Your task to perform on an android device: snooze an email in the gmail app Image 0: 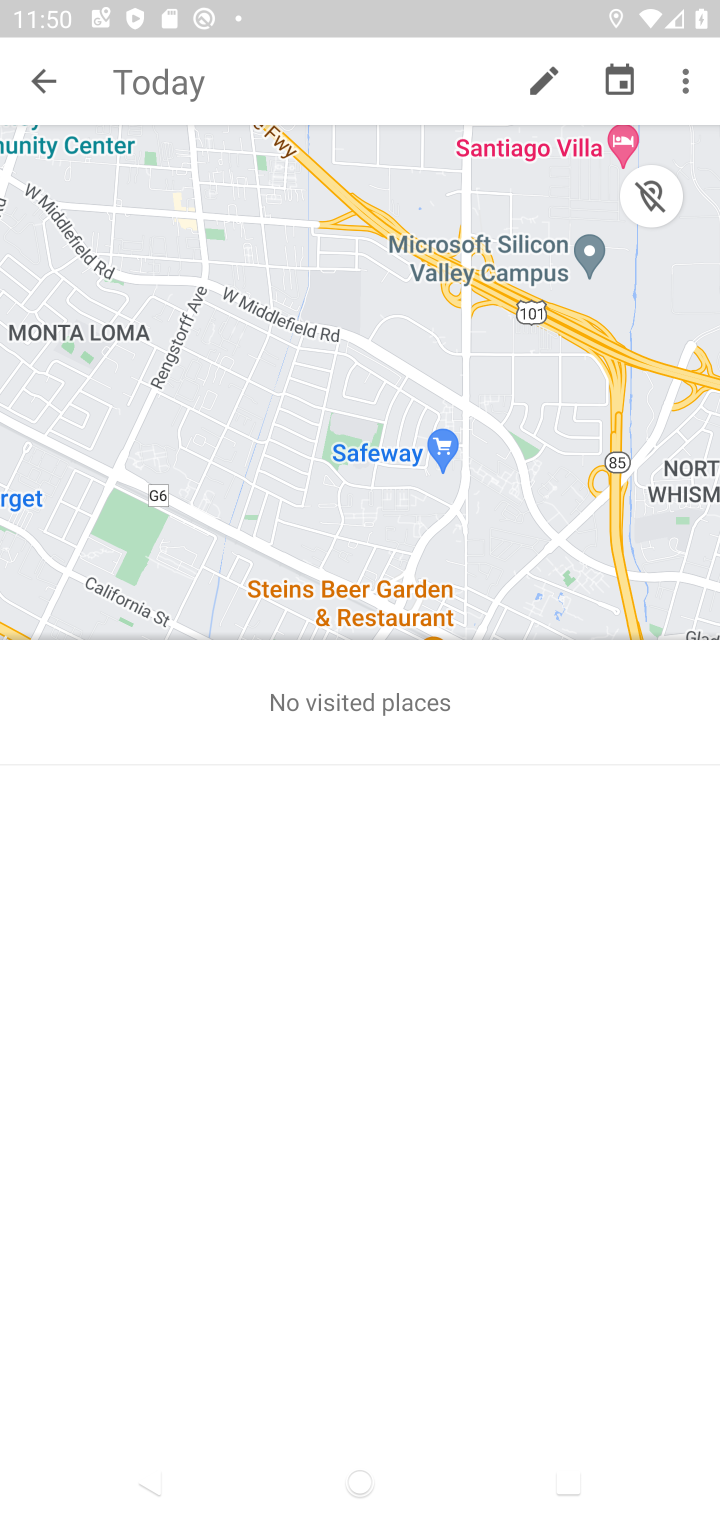
Step 0: press home button
Your task to perform on an android device: snooze an email in the gmail app Image 1: 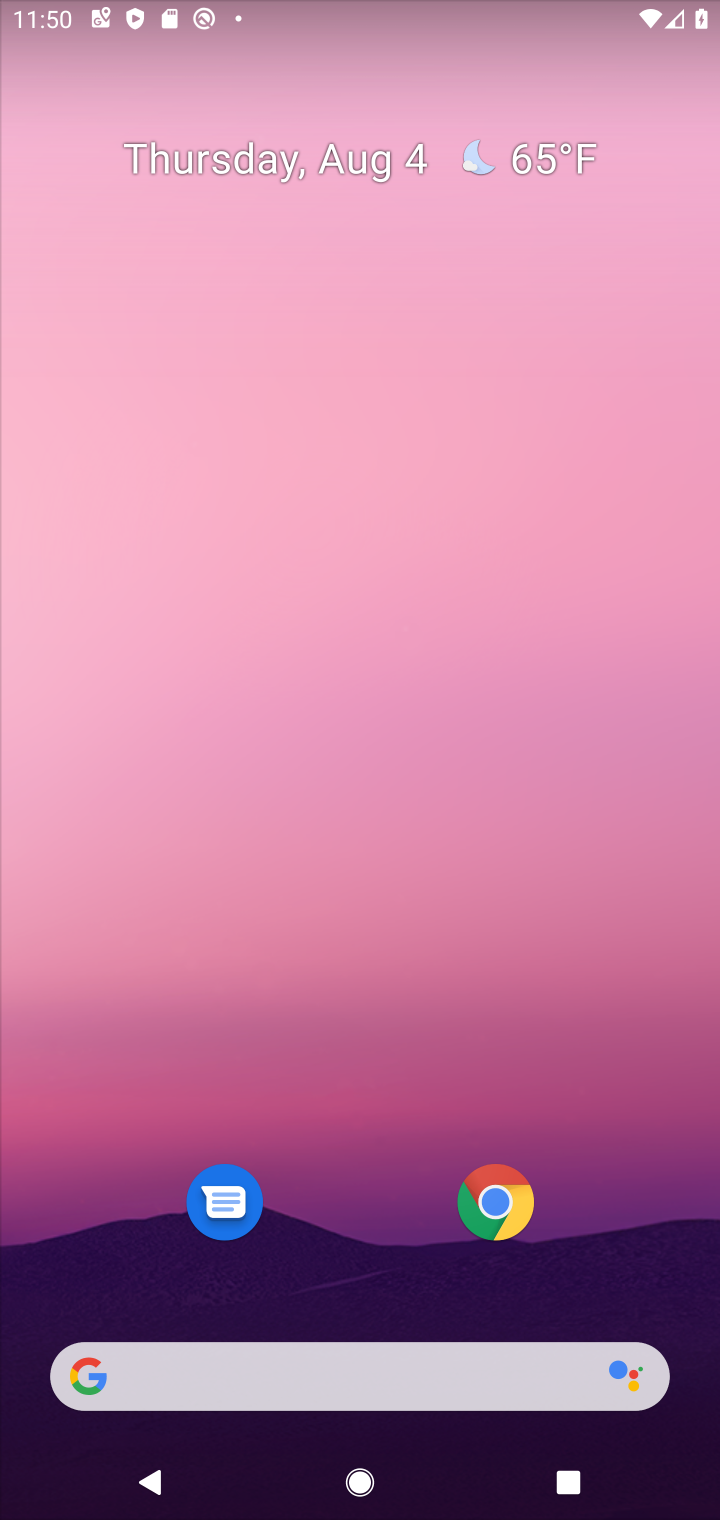
Step 1: drag from (361, 1296) to (462, 12)
Your task to perform on an android device: snooze an email in the gmail app Image 2: 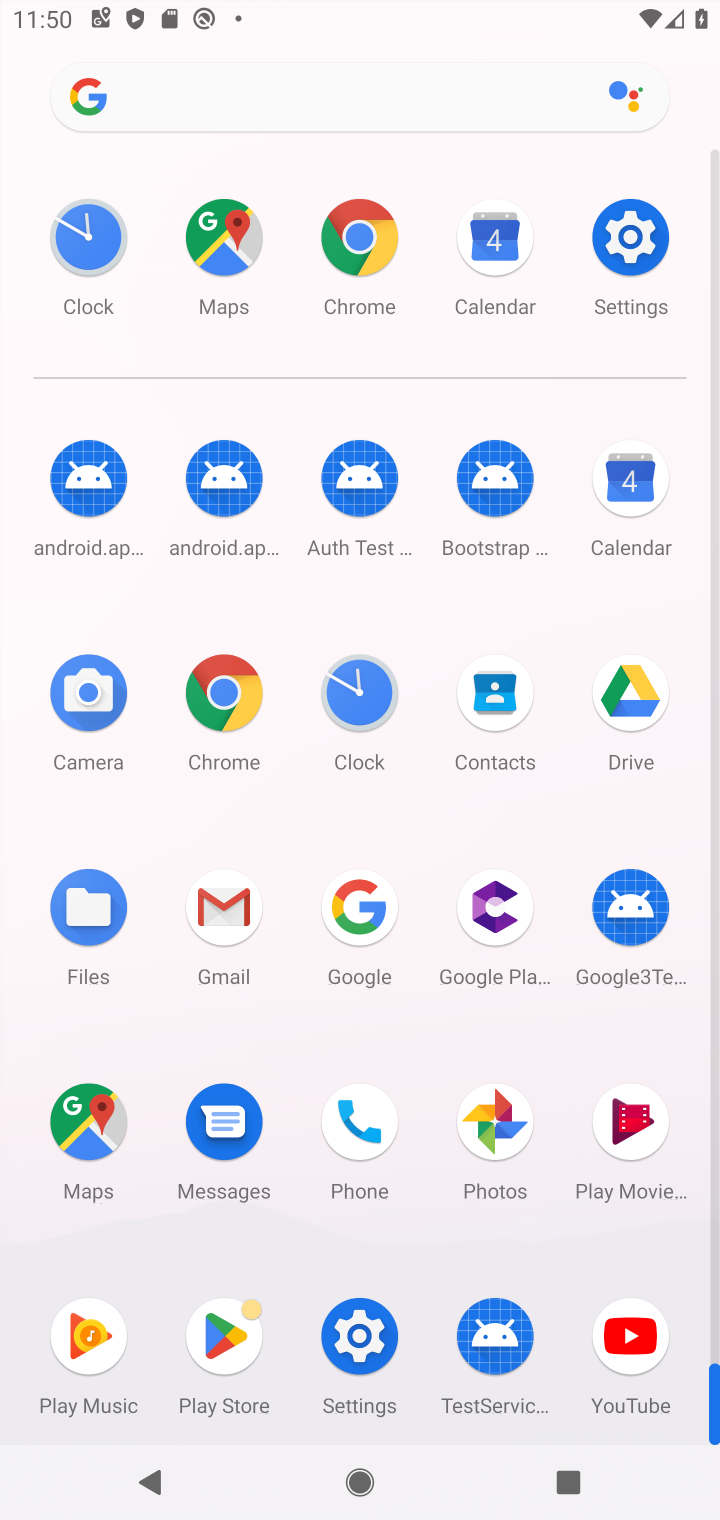
Step 2: click (210, 901)
Your task to perform on an android device: snooze an email in the gmail app Image 3: 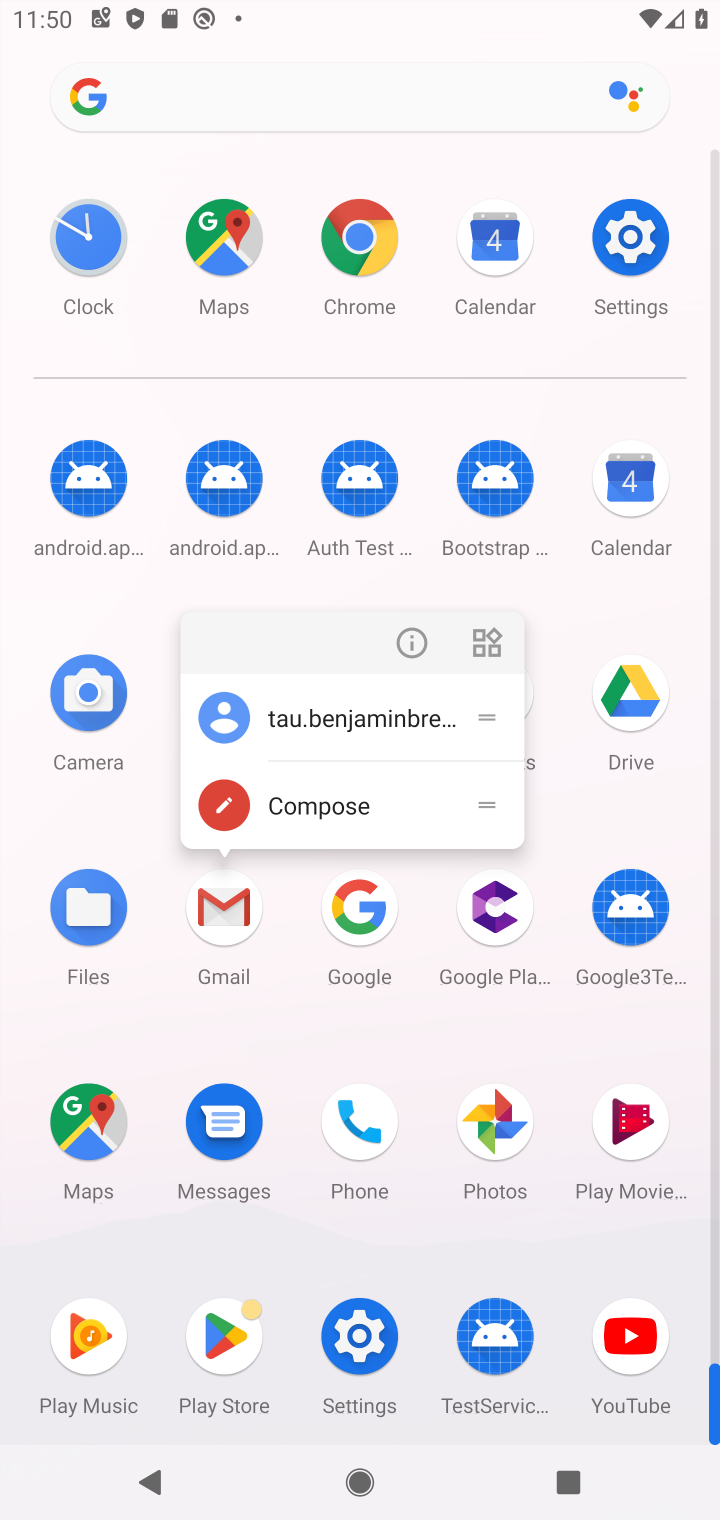
Step 3: click (226, 907)
Your task to perform on an android device: snooze an email in the gmail app Image 4: 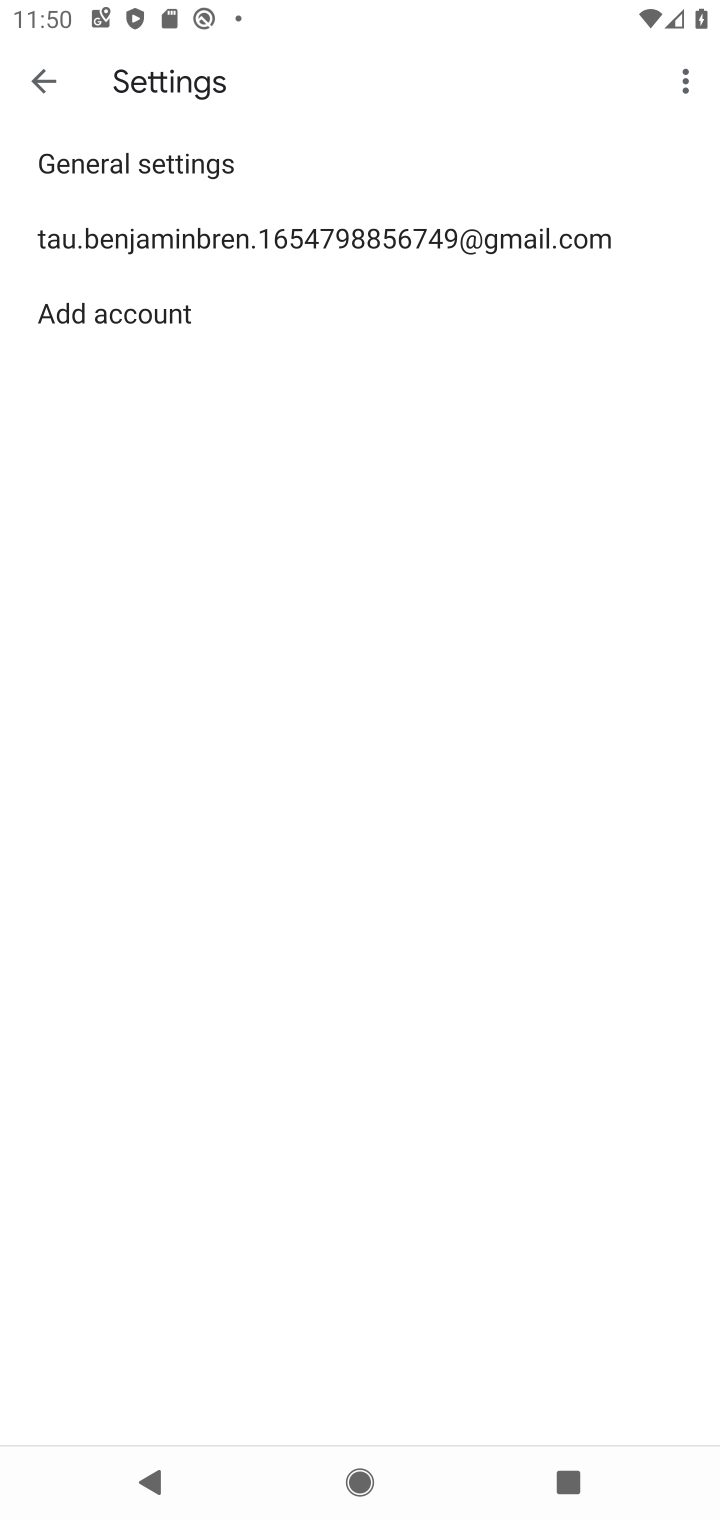
Step 4: click (236, 257)
Your task to perform on an android device: snooze an email in the gmail app Image 5: 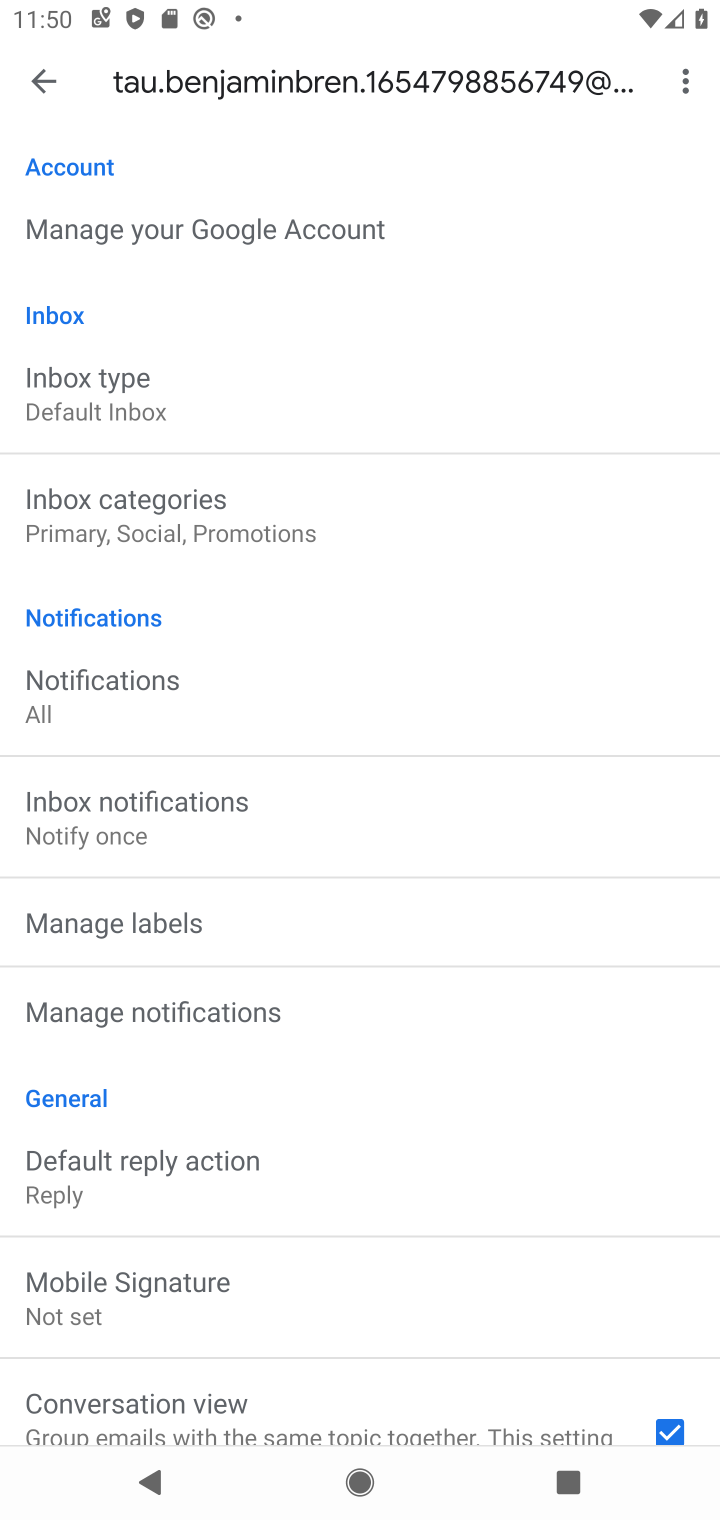
Step 5: click (46, 80)
Your task to perform on an android device: snooze an email in the gmail app Image 6: 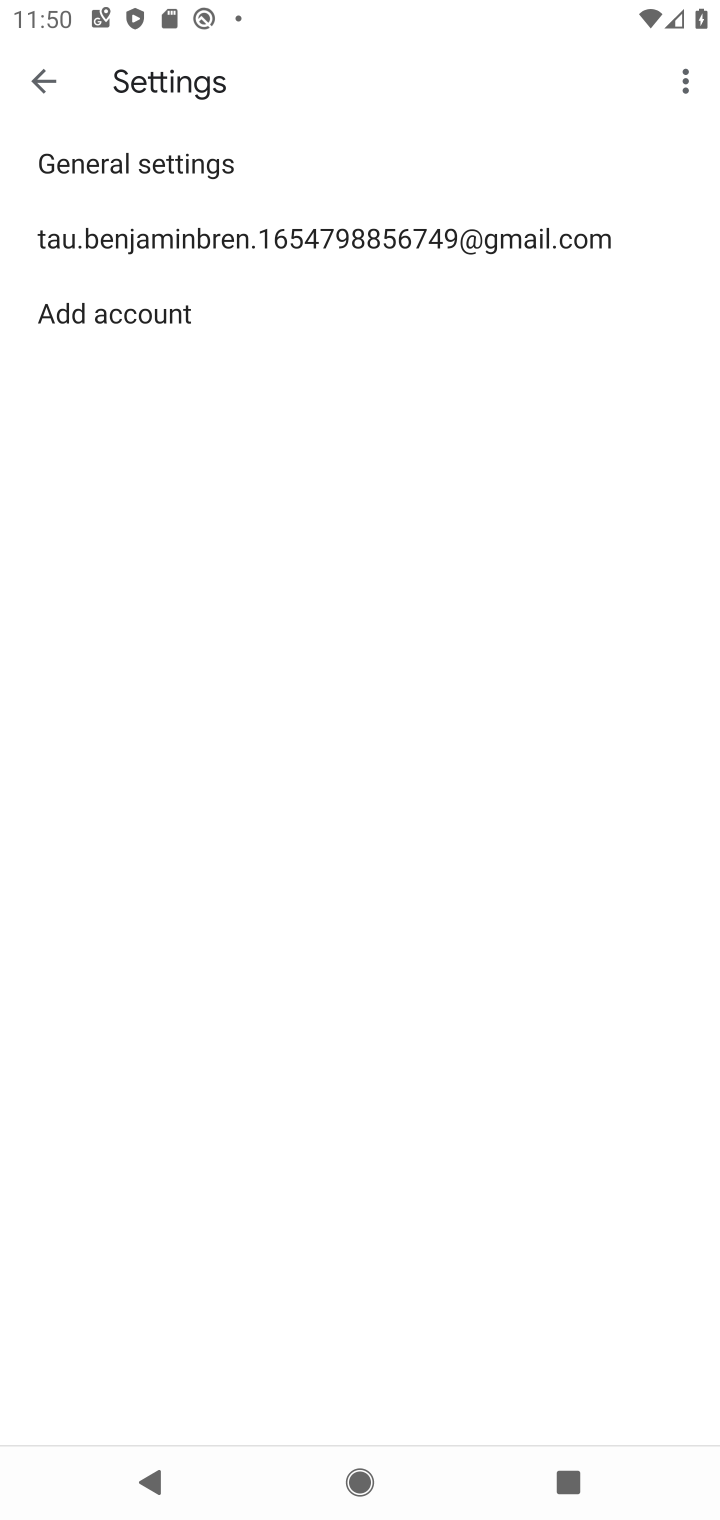
Step 6: click (46, 80)
Your task to perform on an android device: snooze an email in the gmail app Image 7: 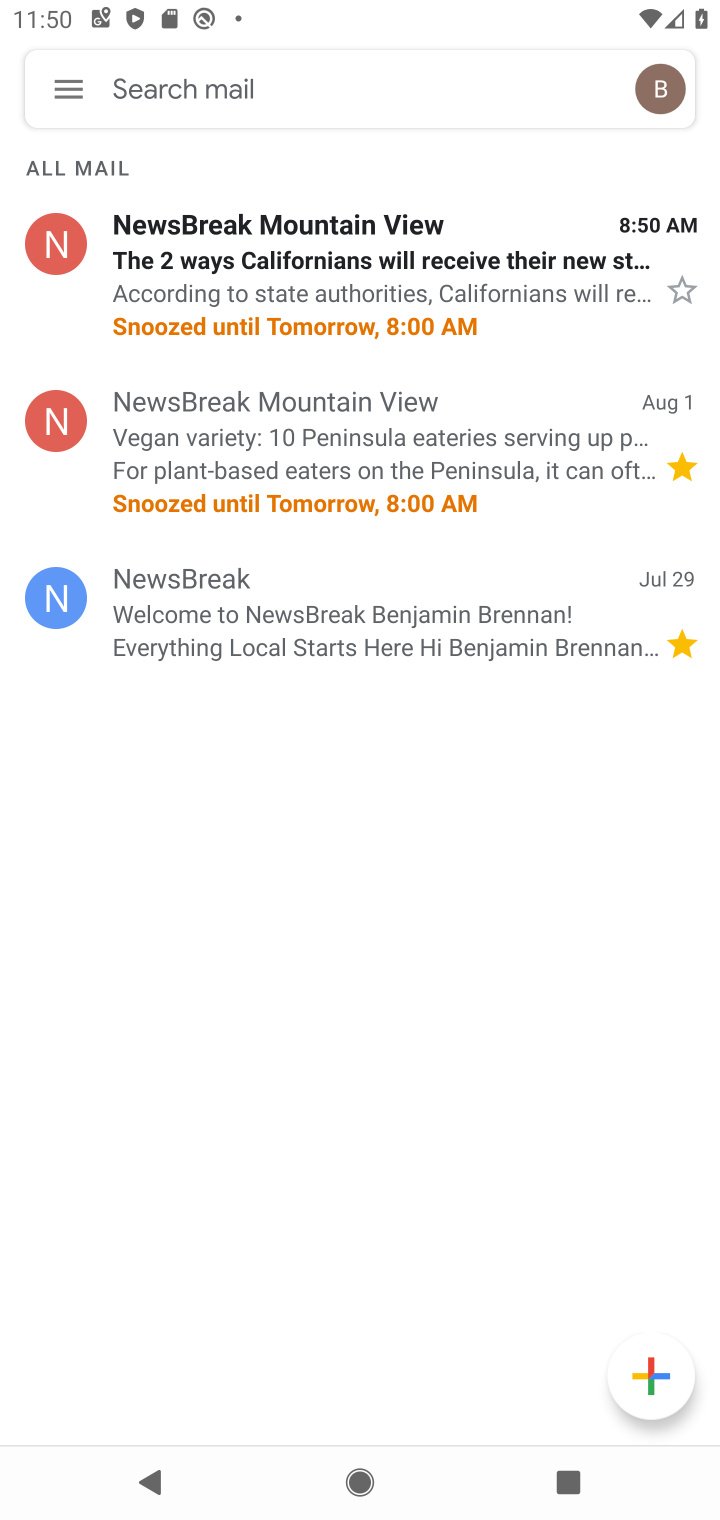
Step 7: click (77, 76)
Your task to perform on an android device: snooze an email in the gmail app Image 8: 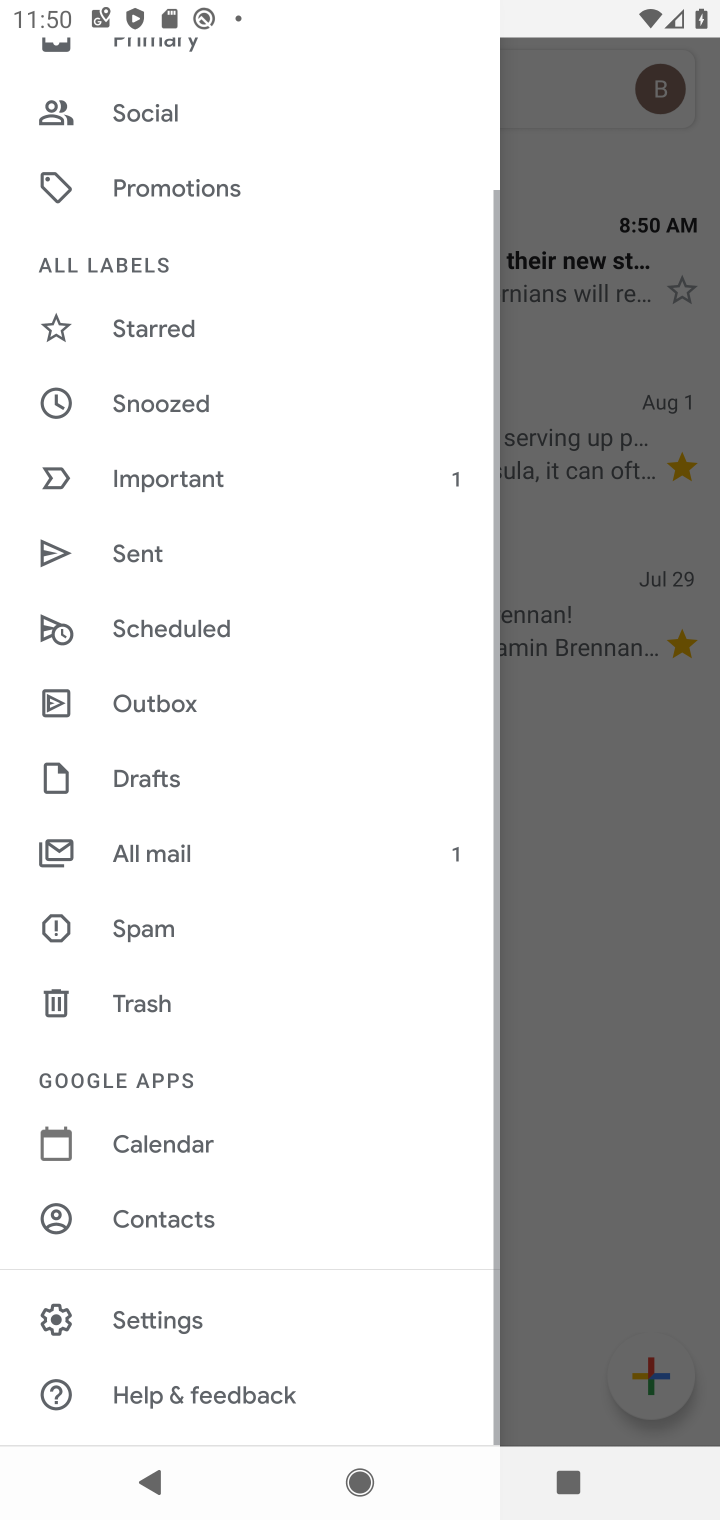
Step 8: click (135, 847)
Your task to perform on an android device: snooze an email in the gmail app Image 9: 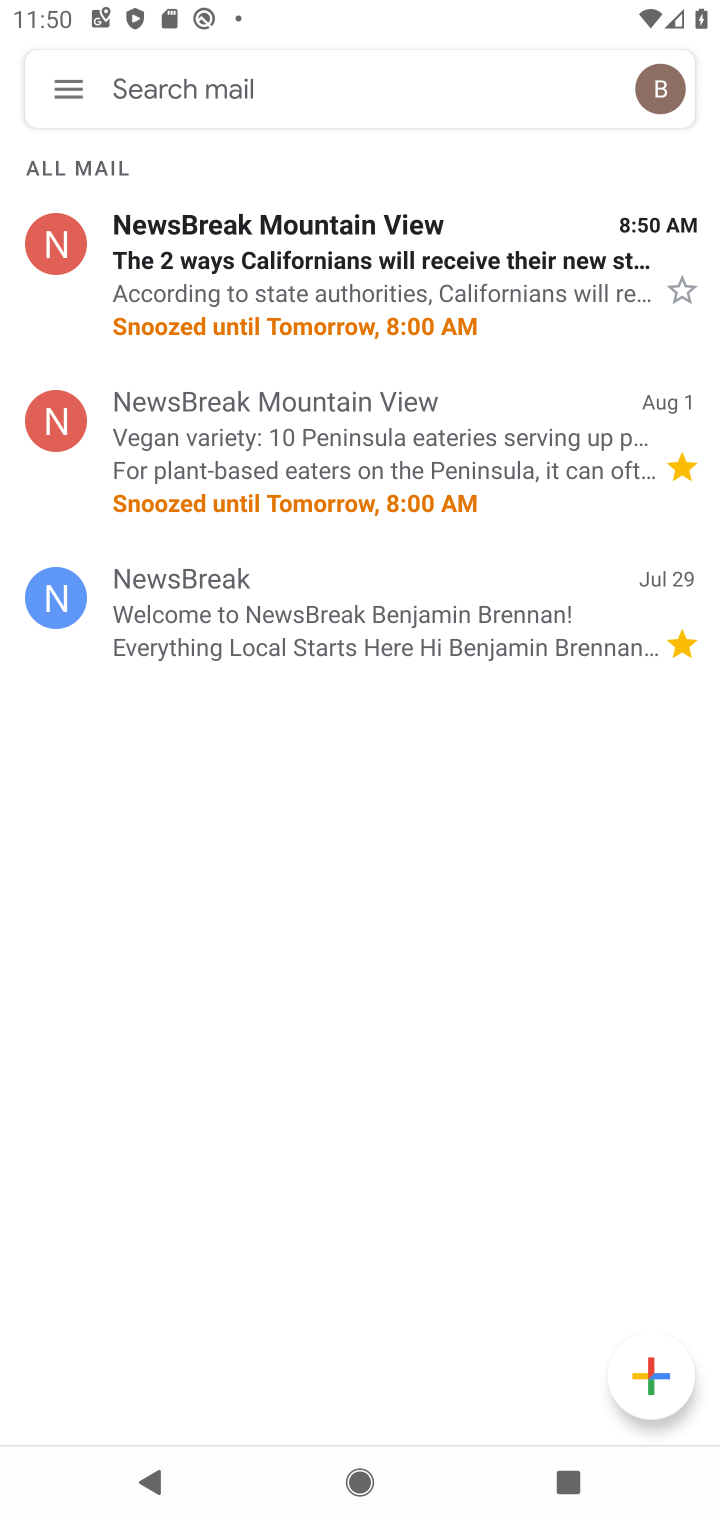
Step 9: click (299, 598)
Your task to perform on an android device: snooze an email in the gmail app Image 10: 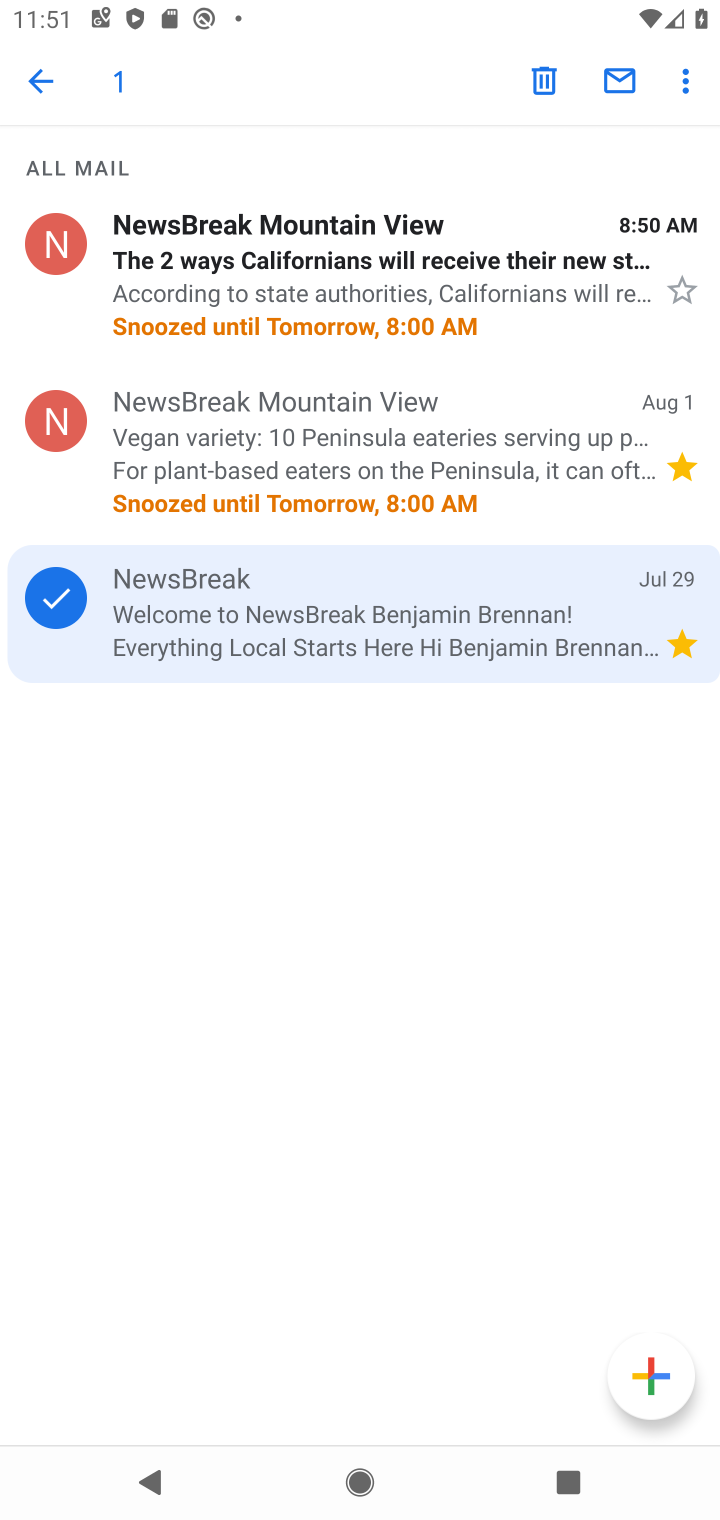
Step 10: click (665, 84)
Your task to perform on an android device: snooze an email in the gmail app Image 11: 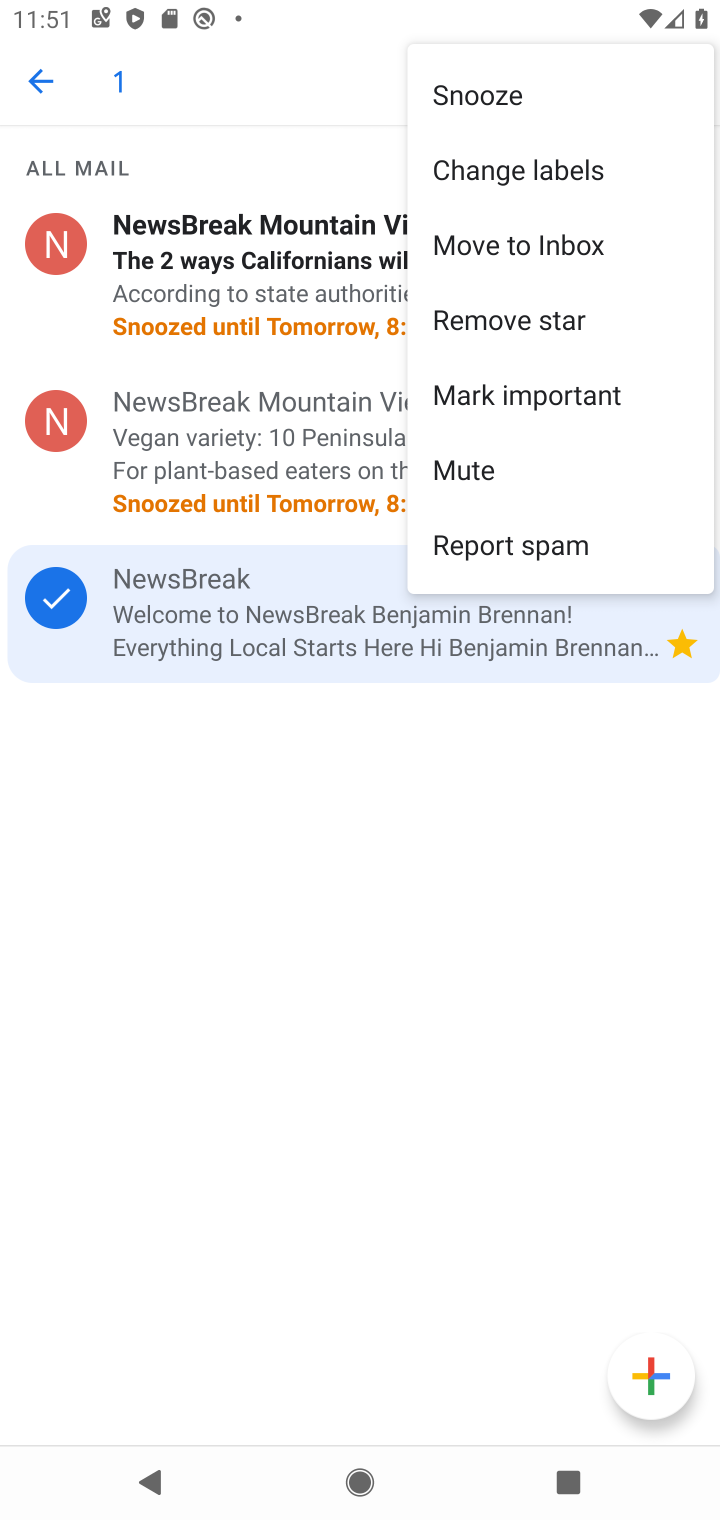
Step 11: click (538, 87)
Your task to perform on an android device: snooze an email in the gmail app Image 12: 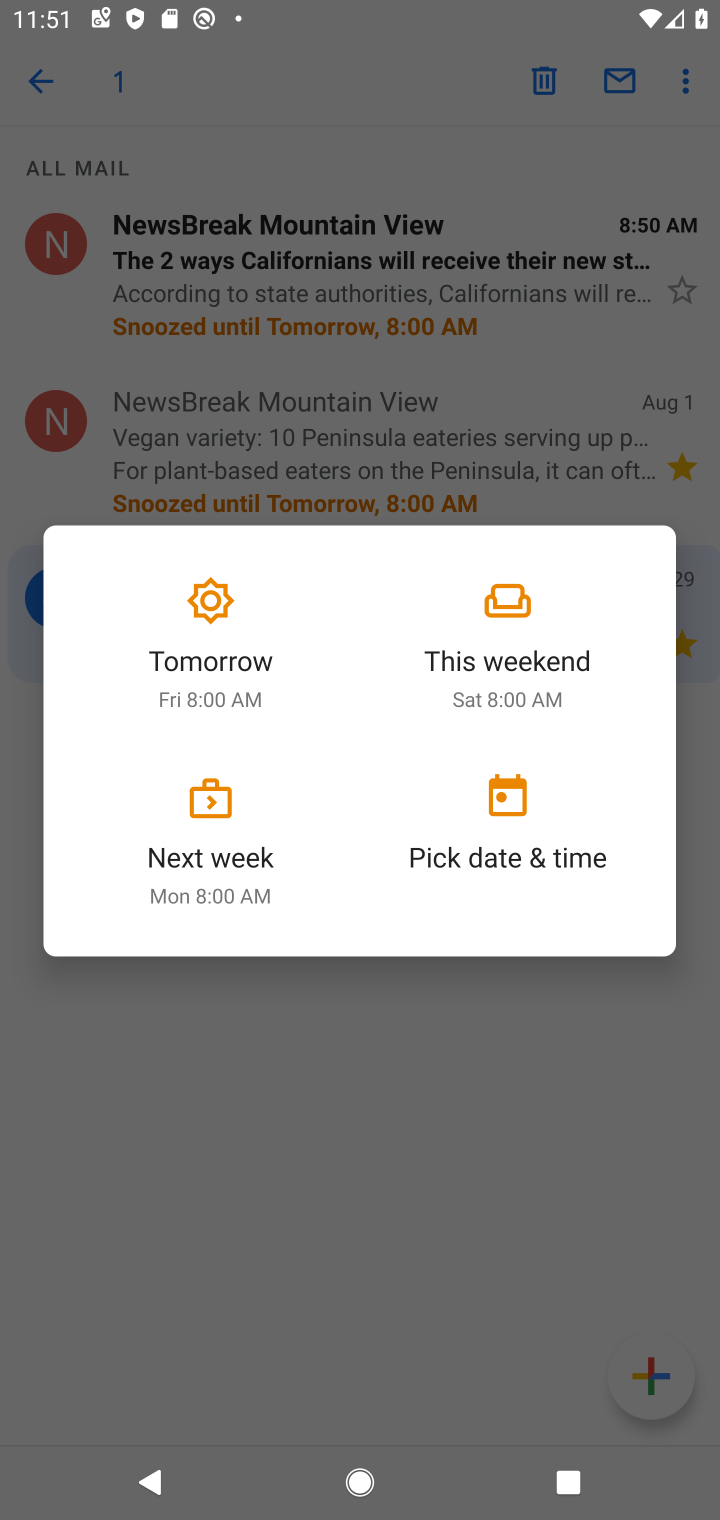
Step 12: click (509, 636)
Your task to perform on an android device: snooze an email in the gmail app Image 13: 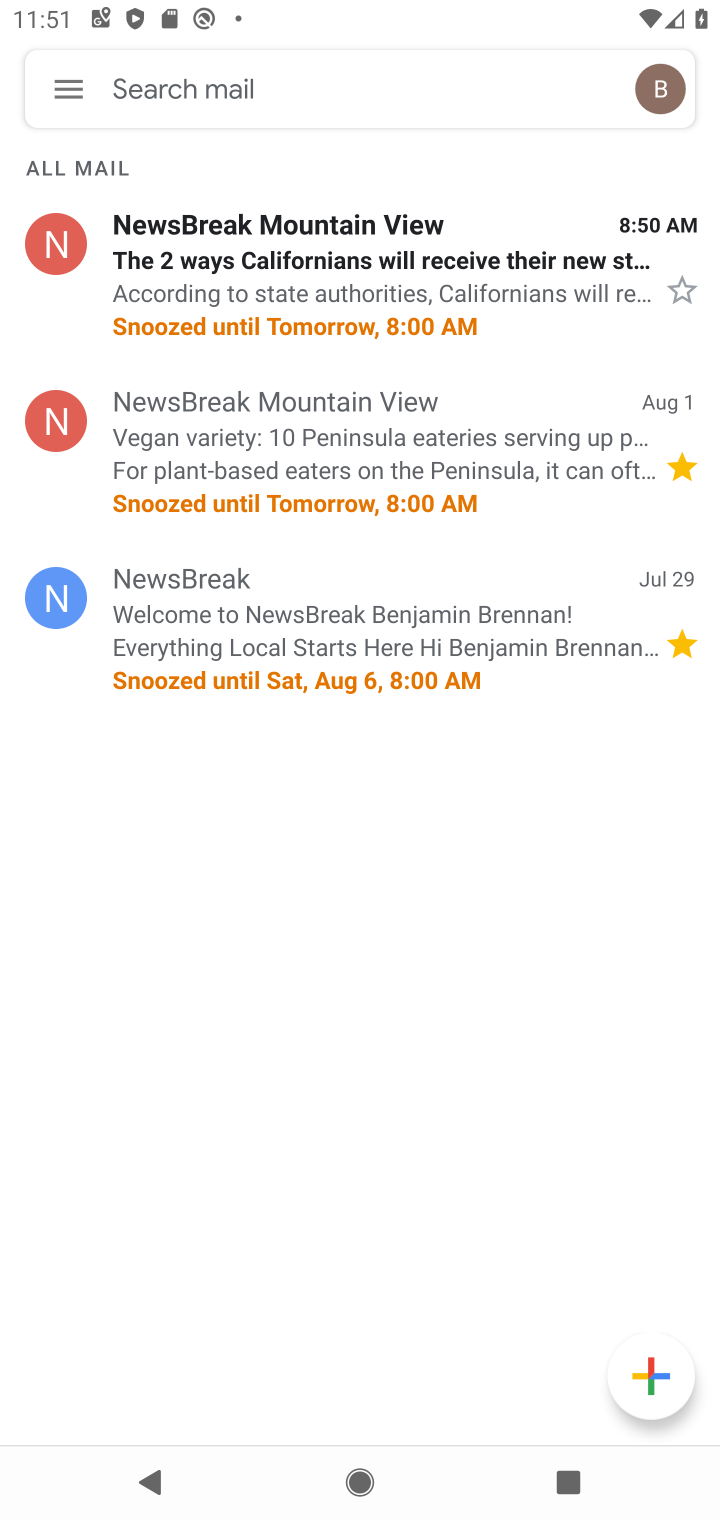
Step 13: task complete